Your task to perform on an android device: open device folders in google photos Image 0: 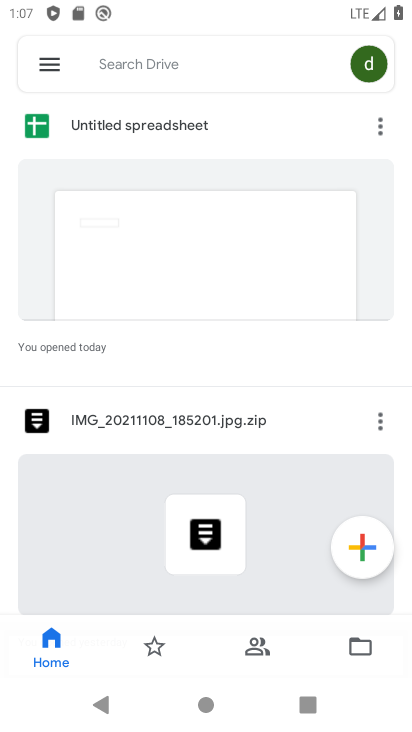
Step 0: press home button
Your task to perform on an android device: open device folders in google photos Image 1: 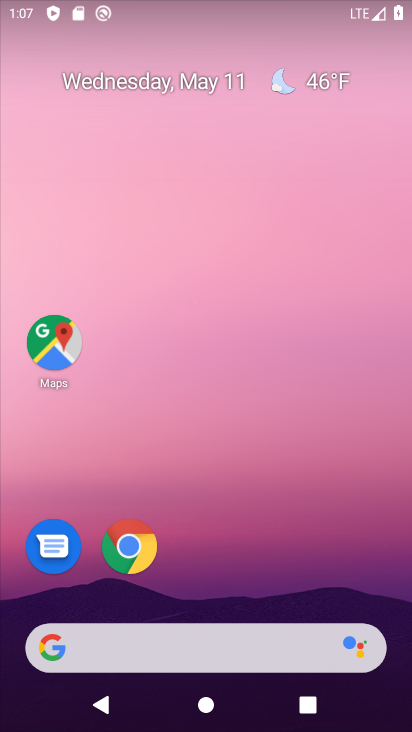
Step 1: drag from (241, 664) to (208, 246)
Your task to perform on an android device: open device folders in google photos Image 2: 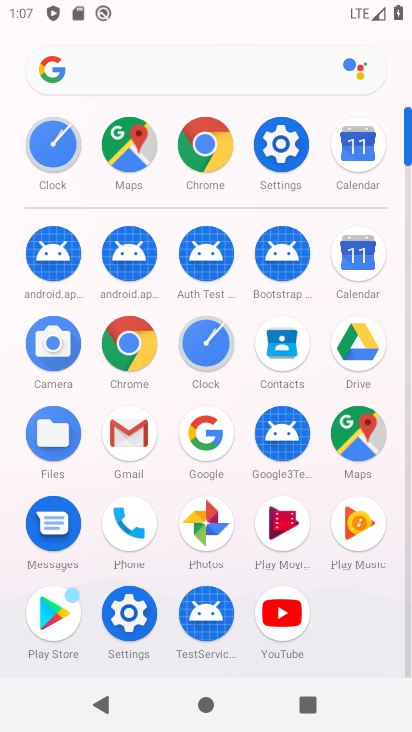
Step 2: click (219, 517)
Your task to perform on an android device: open device folders in google photos Image 3: 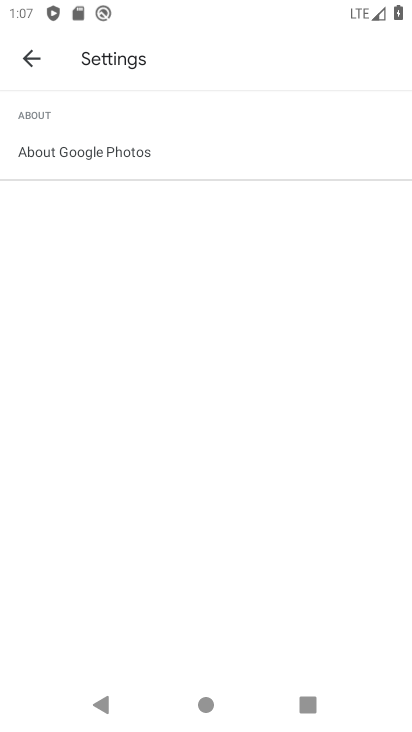
Step 3: click (23, 62)
Your task to perform on an android device: open device folders in google photos Image 4: 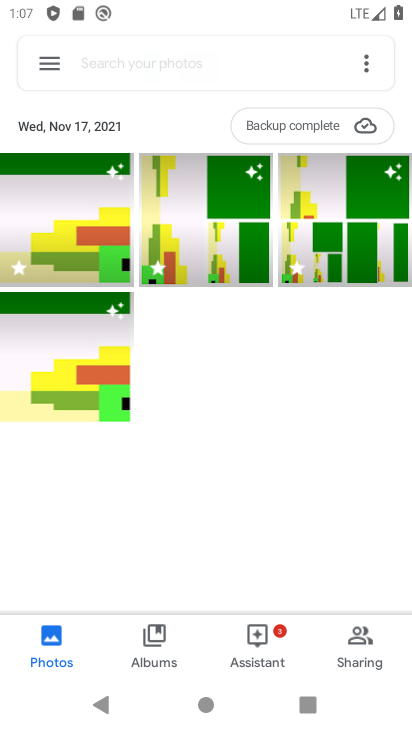
Step 4: click (51, 80)
Your task to perform on an android device: open device folders in google photos Image 5: 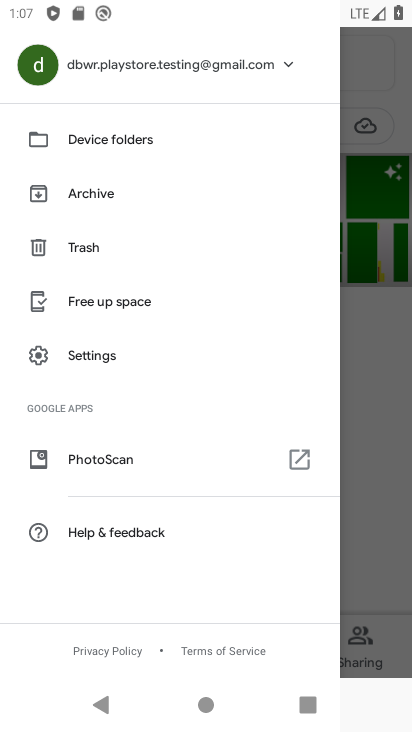
Step 5: click (137, 145)
Your task to perform on an android device: open device folders in google photos Image 6: 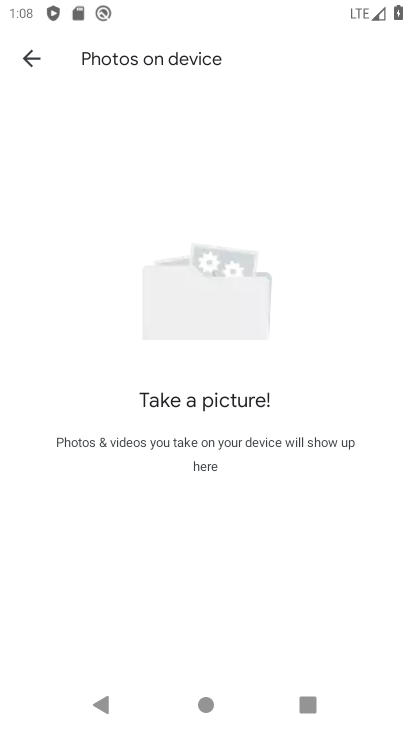
Step 6: task complete